Your task to perform on an android device: check out phone information Image 0: 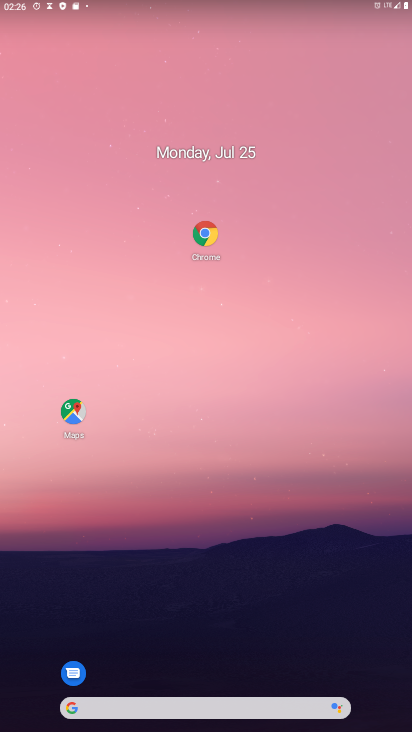
Step 0: drag from (151, 719) to (202, 4)
Your task to perform on an android device: check out phone information Image 1: 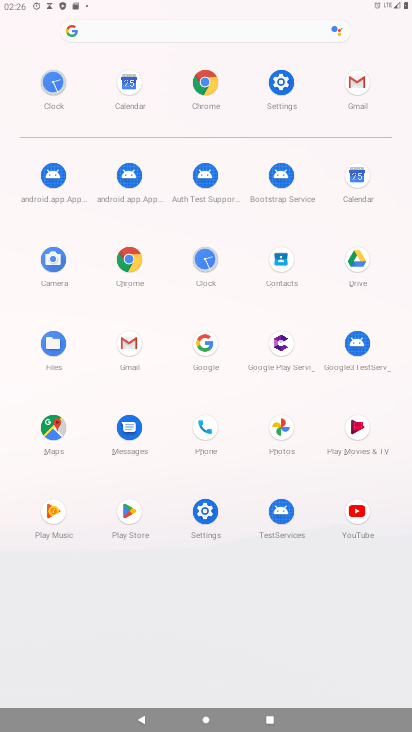
Step 1: click (280, 75)
Your task to perform on an android device: check out phone information Image 2: 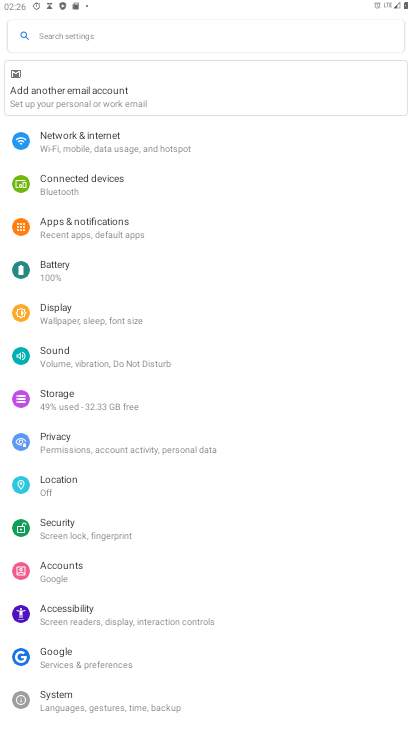
Step 2: drag from (118, 699) to (177, 192)
Your task to perform on an android device: check out phone information Image 3: 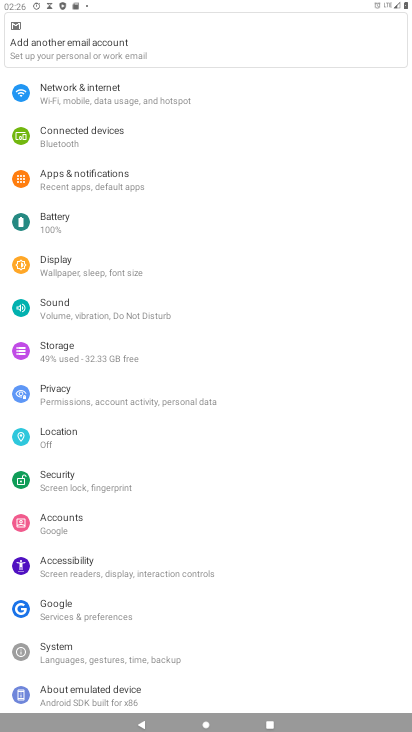
Step 3: click (124, 692)
Your task to perform on an android device: check out phone information Image 4: 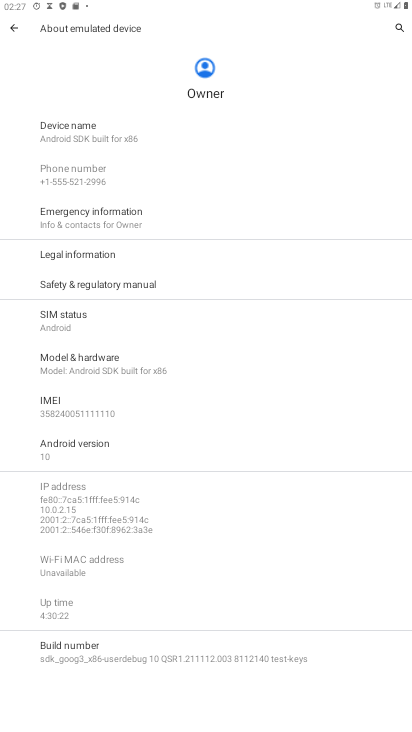
Step 4: task complete